Your task to perform on an android device: Open Youtube and go to "Your channel" Image 0: 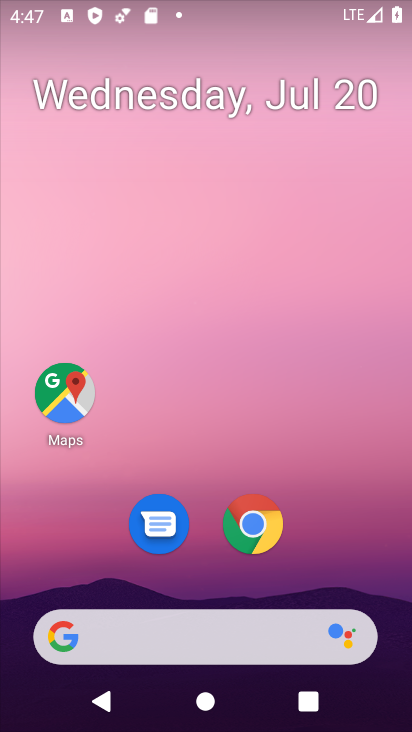
Step 0: drag from (280, 409) to (277, 39)
Your task to perform on an android device: Open Youtube and go to "Your channel" Image 1: 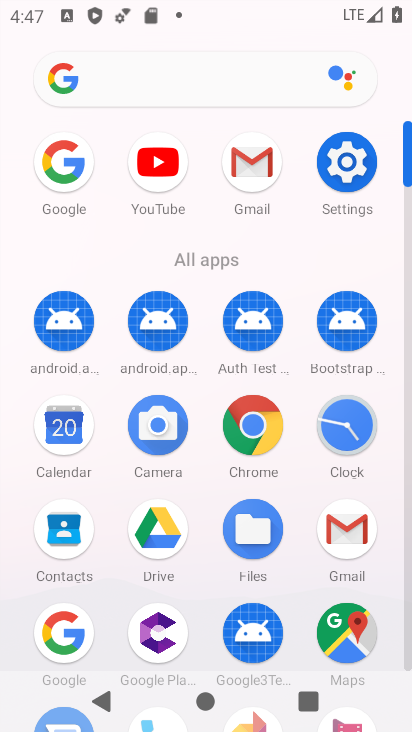
Step 1: click (176, 164)
Your task to perform on an android device: Open Youtube and go to "Your channel" Image 2: 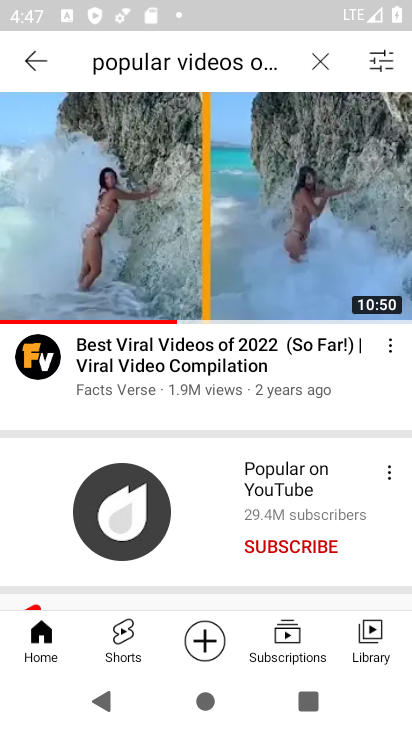
Step 2: click (381, 69)
Your task to perform on an android device: Open Youtube and go to "Your channel" Image 3: 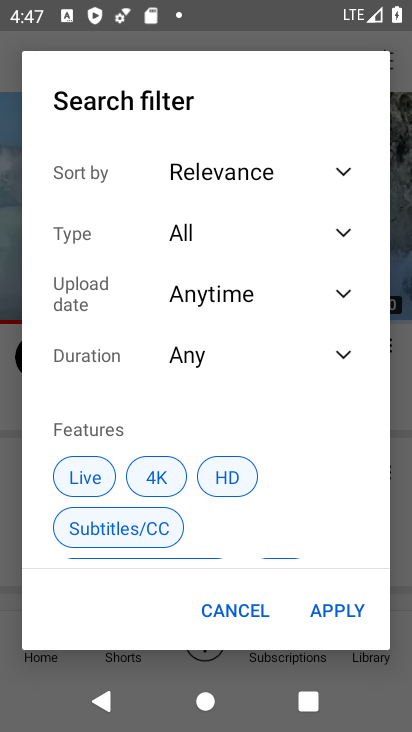
Step 3: click (399, 42)
Your task to perform on an android device: Open Youtube and go to "Your channel" Image 4: 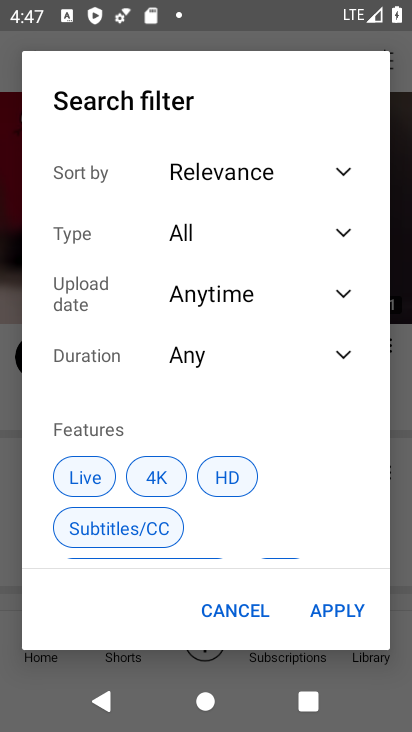
Step 4: click (250, 619)
Your task to perform on an android device: Open Youtube and go to "Your channel" Image 5: 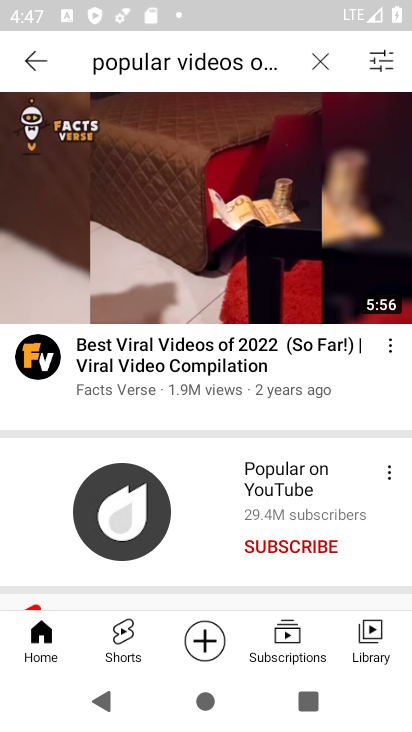
Step 5: press back button
Your task to perform on an android device: Open Youtube and go to "Your channel" Image 6: 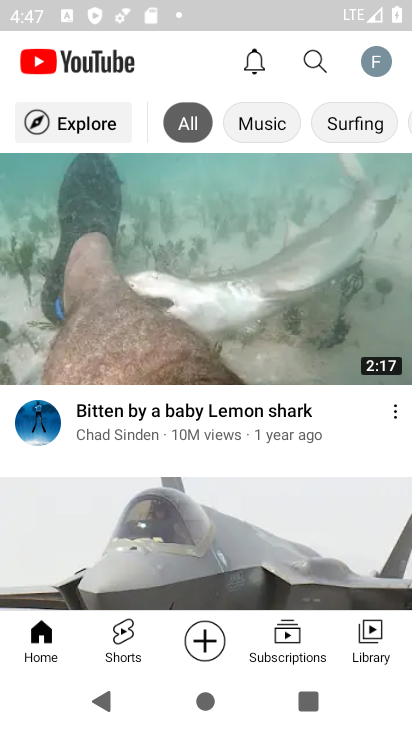
Step 6: click (383, 61)
Your task to perform on an android device: Open Youtube and go to "Your channel" Image 7: 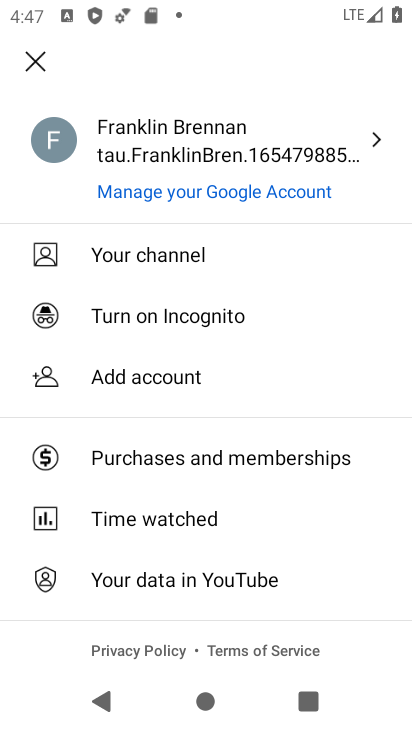
Step 7: click (180, 243)
Your task to perform on an android device: Open Youtube and go to "Your channel" Image 8: 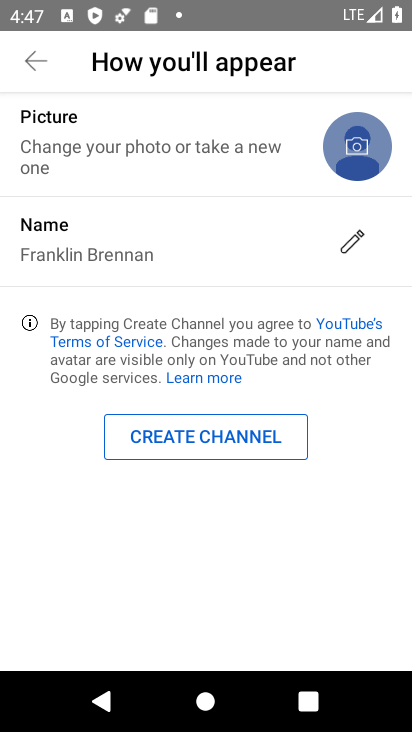
Step 8: task complete